Your task to perform on an android device: When is my next meeting? Image 0: 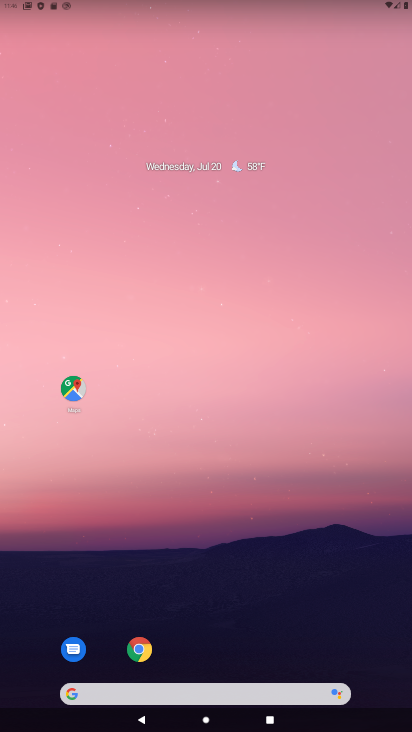
Step 0: drag from (200, 666) to (237, 100)
Your task to perform on an android device: When is my next meeting? Image 1: 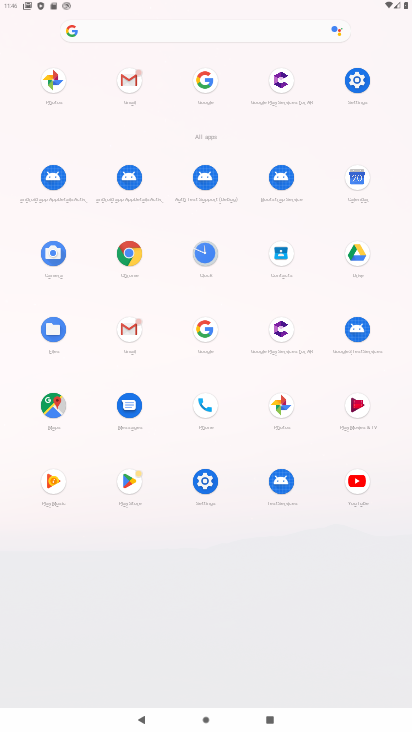
Step 1: click (356, 179)
Your task to perform on an android device: When is my next meeting? Image 2: 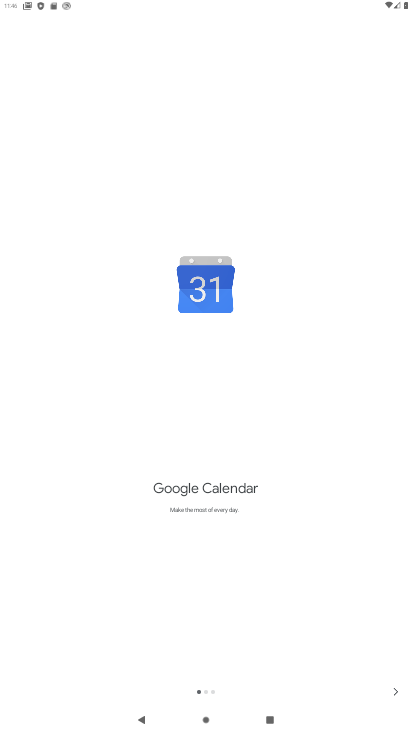
Step 2: click (396, 691)
Your task to perform on an android device: When is my next meeting? Image 3: 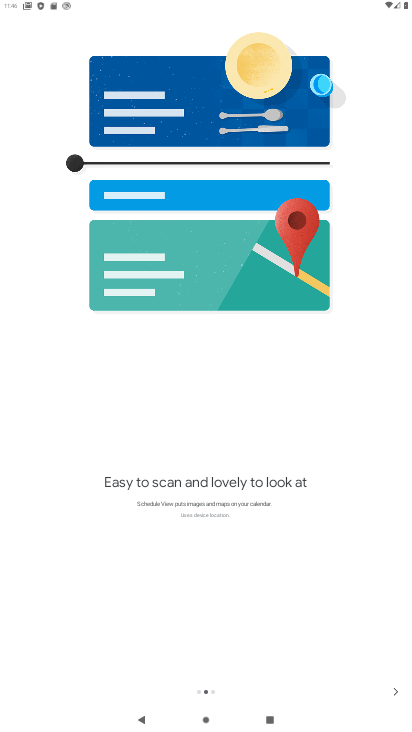
Step 3: click (396, 691)
Your task to perform on an android device: When is my next meeting? Image 4: 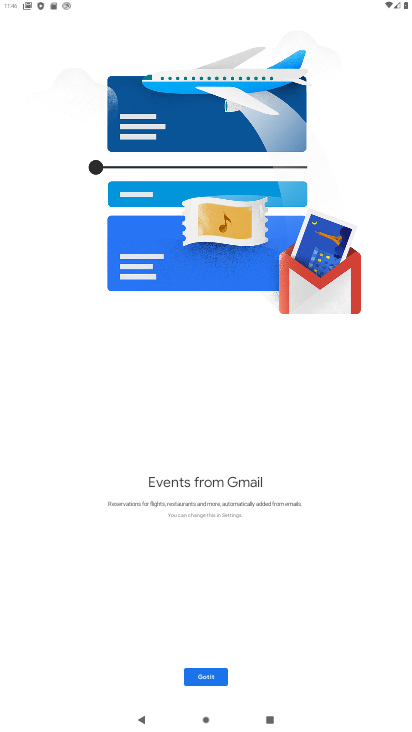
Step 4: click (195, 681)
Your task to perform on an android device: When is my next meeting? Image 5: 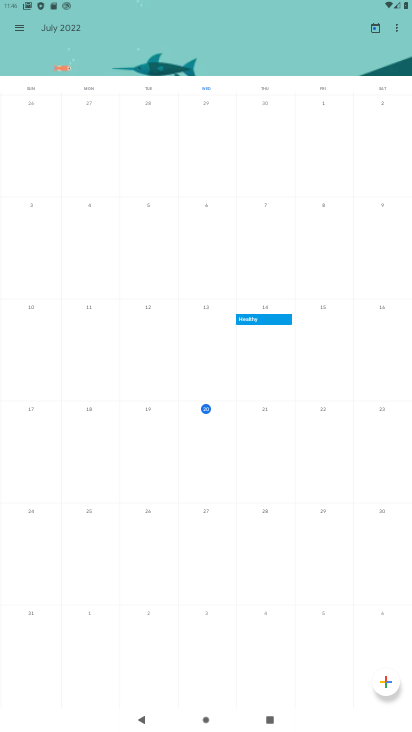
Step 5: click (315, 414)
Your task to perform on an android device: When is my next meeting? Image 6: 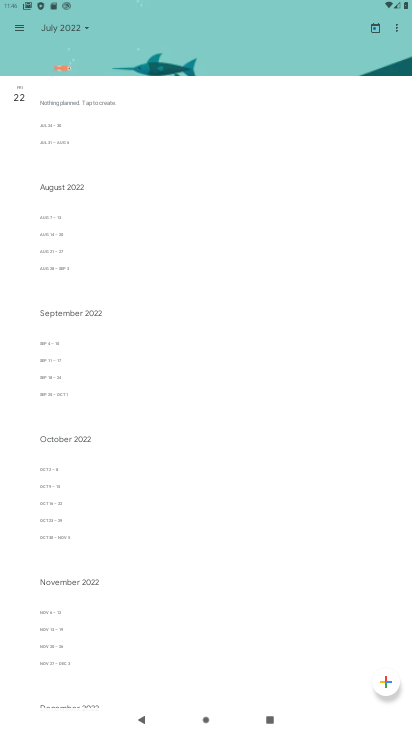
Step 6: task complete